Your task to perform on an android device: turn on improve location accuracy Image 0: 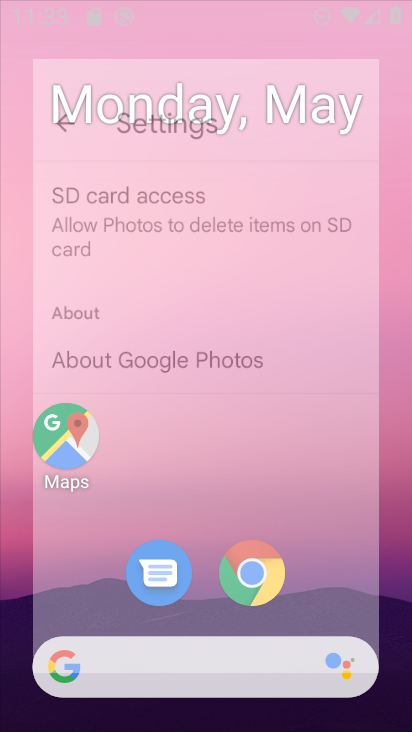
Step 0: drag from (357, 587) to (221, 90)
Your task to perform on an android device: turn on improve location accuracy Image 1: 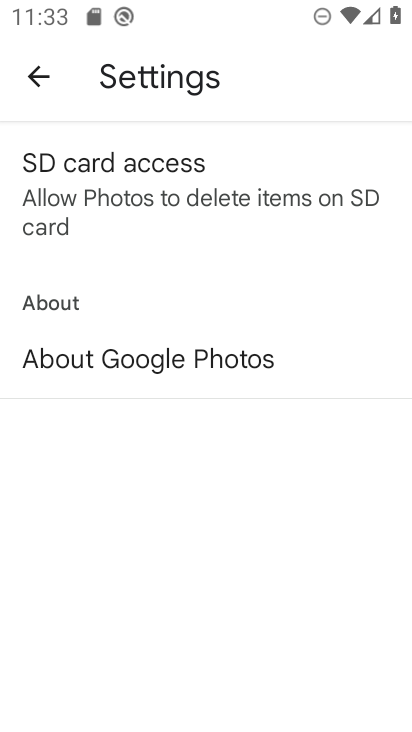
Step 1: press home button
Your task to perform on an android device: turn on improve location accuracy Image 2: 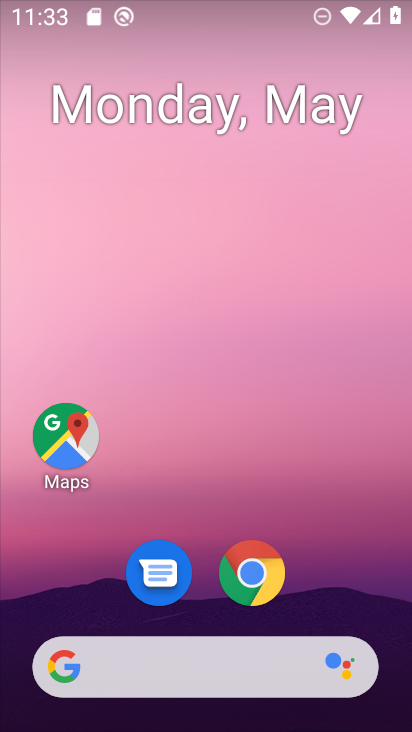
Step 2: drag from (353, 552) to (265, 86)
Your task to perform on an android device: turn on improve location accuracy Image 3: 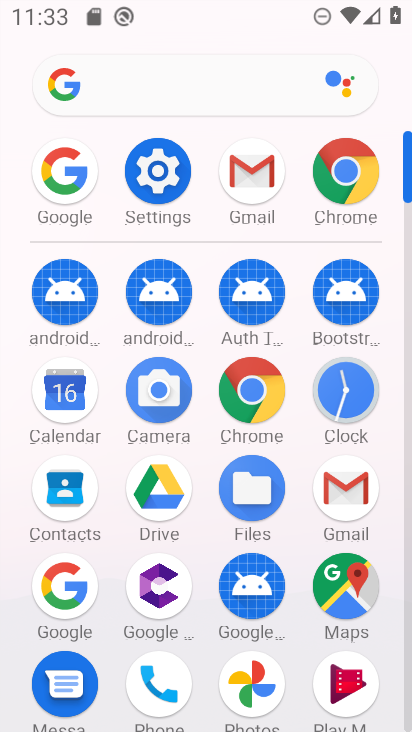
Step 3: click (245, 146)
Your task to perform on an android device: turn on improve location accuracy Image 4: 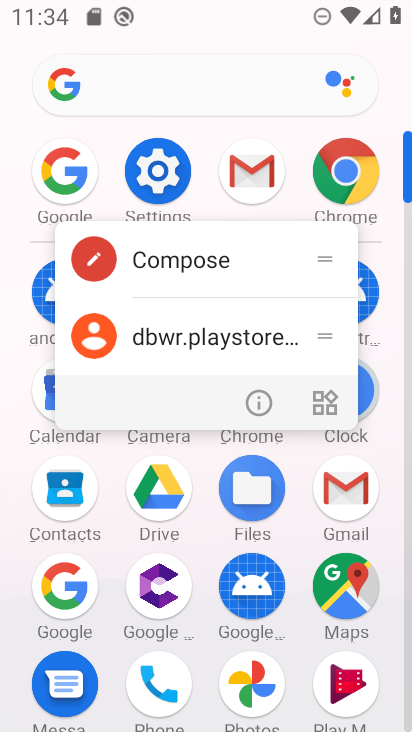
Step 4: click (143, 177)
Your task to perform on an android device: turn on improve location accuracy Image 5: 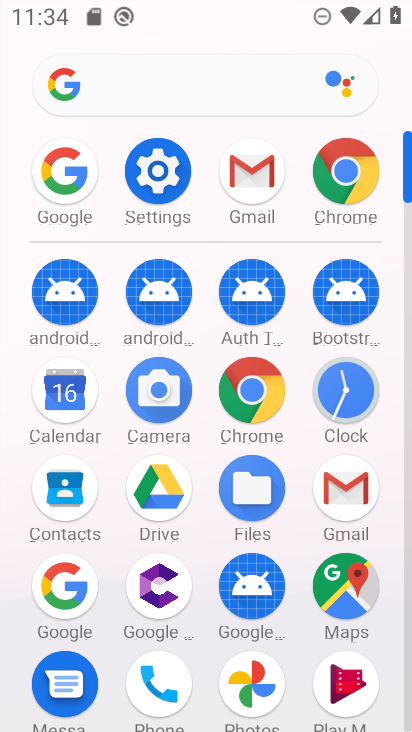
Step 5: click (154, 171)
Your task to perform on an android device: turn on improve location accuracy Image 6: 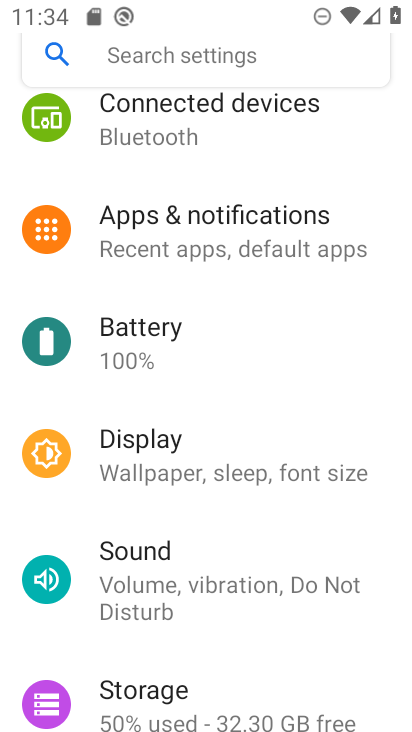
Step 6: drag from (273, 587) to (242, 143)
Your task to perform on an android device: turn on improve location accuracy Image 7: 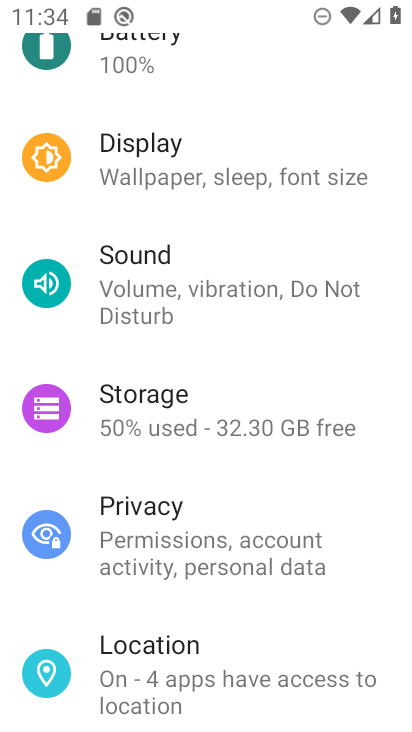
Step 7: click (227, 662)
Your task to perform on an android device: turn on improve location accuracy Image 8: 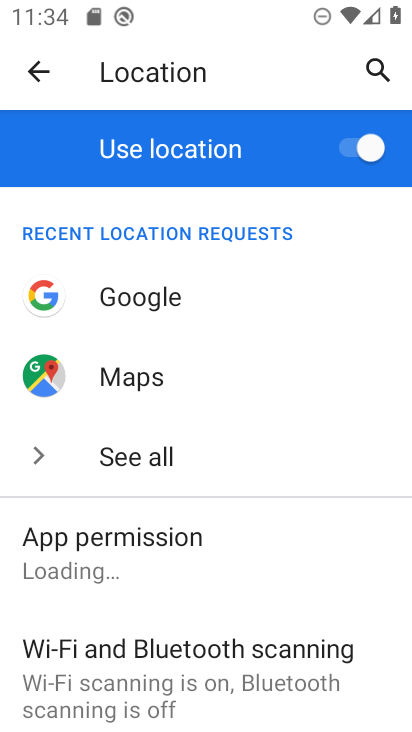
Step 8: drag from (241, 641) to (243, 221)
Your task to perform on an android device: turn on improve location accuracy Image 9: 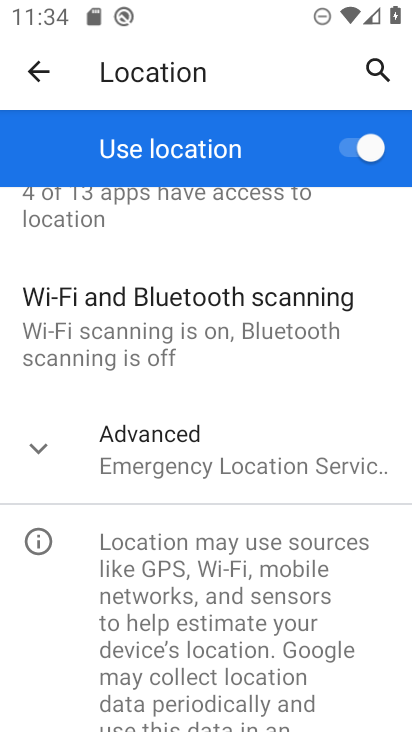
Step 9: click (173, 458)
Your task to perform on an android device: turn on improve location accuracy Image 10: 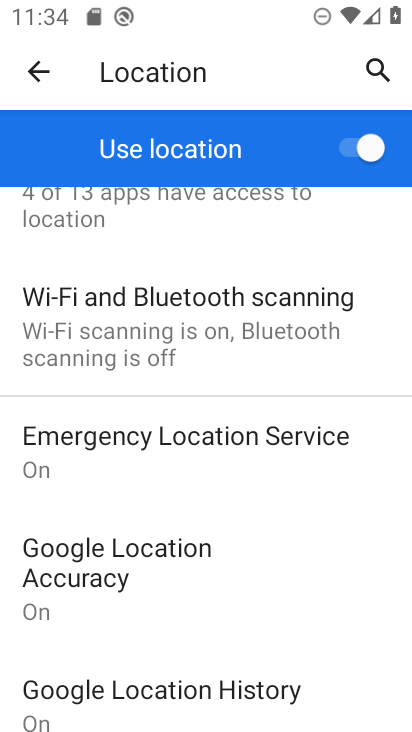
Step 10: drag from (164, 509) to (168, 340)
Your task to perform on an android device: turn on improve location accuracy Image 11: 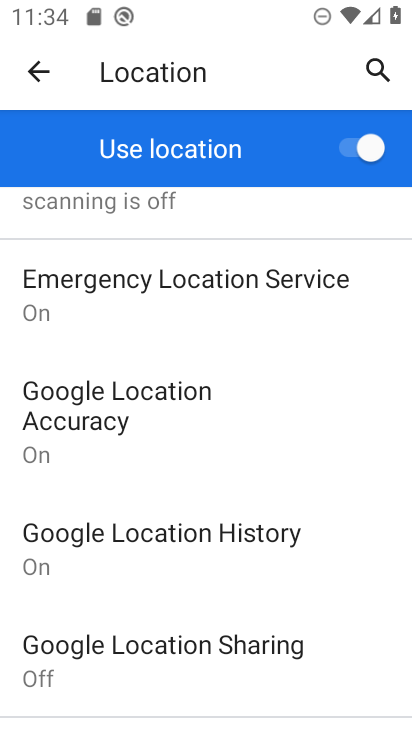
Step 11: click (183, 412)
Your task to perform on an android device: turn on improve location accuracy Image 12: 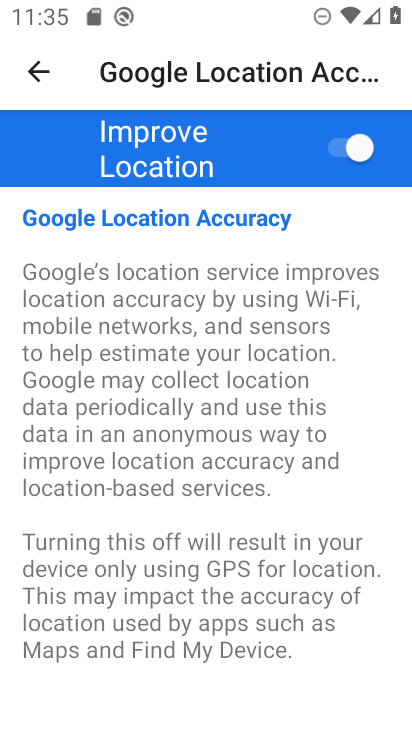
Step 12: task complete